Your task to perform on an android device: Show me the alarms in the clock app Image 0: 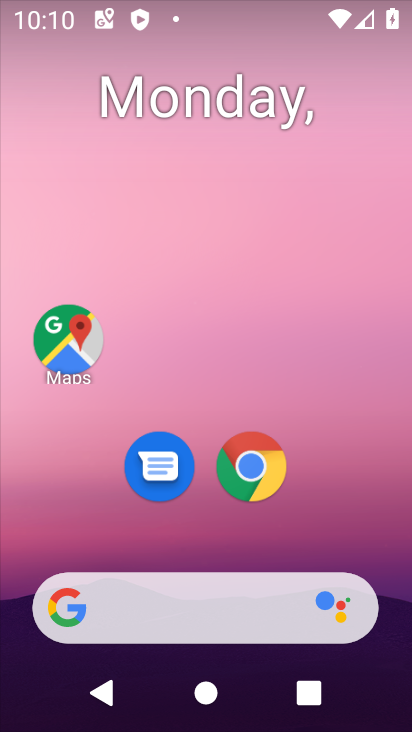
Step 0: drag from (225, 532) to (258, 222)
Your task to perform on an android device: Show me the alarms in the clock app Image 1: 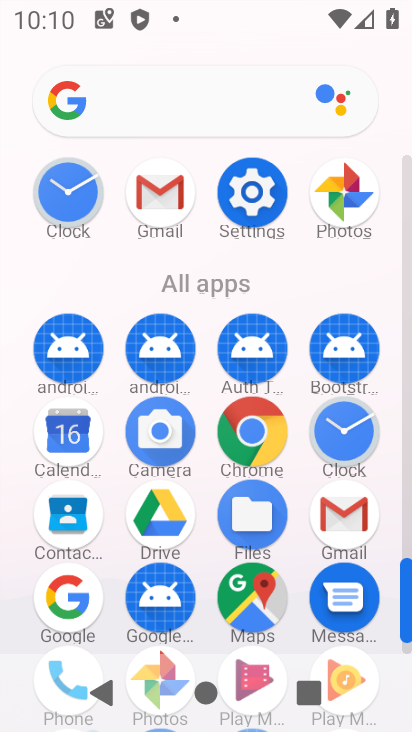
Step 1: click (341, 431)
Your task to perform on an android device: Show me the alarms in the clock app Image 2: 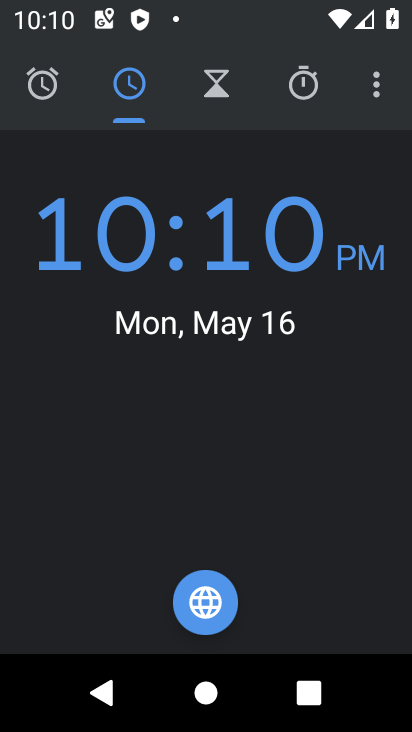
Step 2: click (36, 86)
Your task to perform on an android device: Show me the alarms in the clock app Image 3: 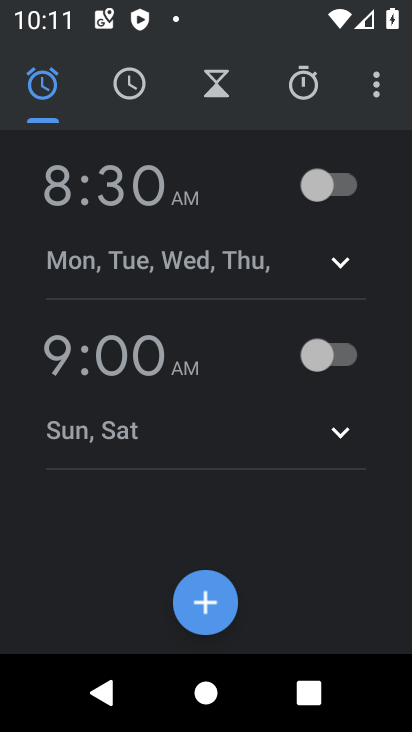
Step 3: task complete